Your task to perform on an android device: change keyboard looks Image 0: 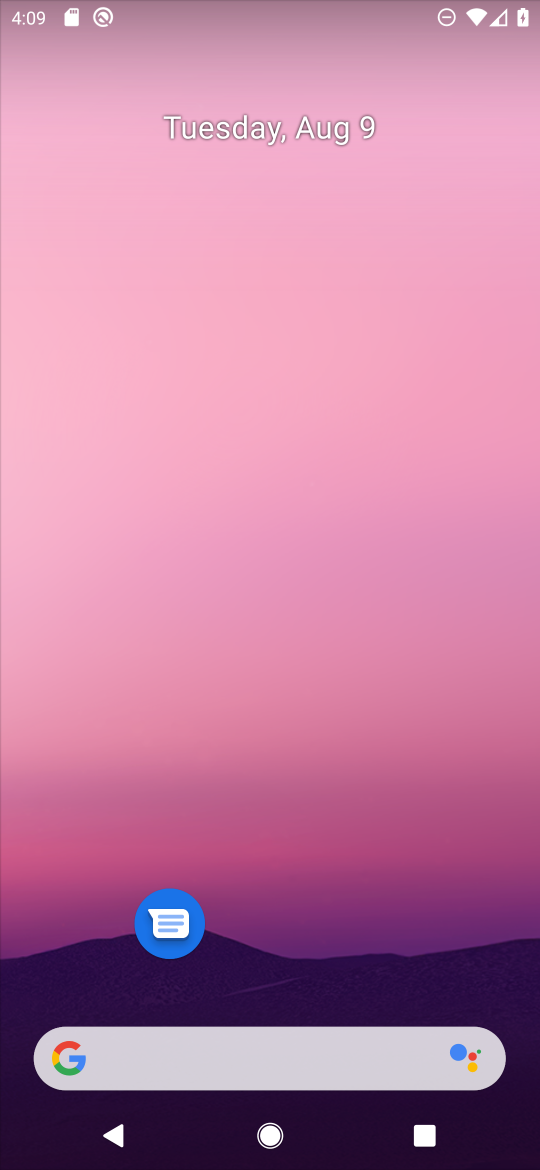
Step 0: drag from (248, 629) to (285, 1)
Your task to perform on an android device: change keyboard looks Image 1: 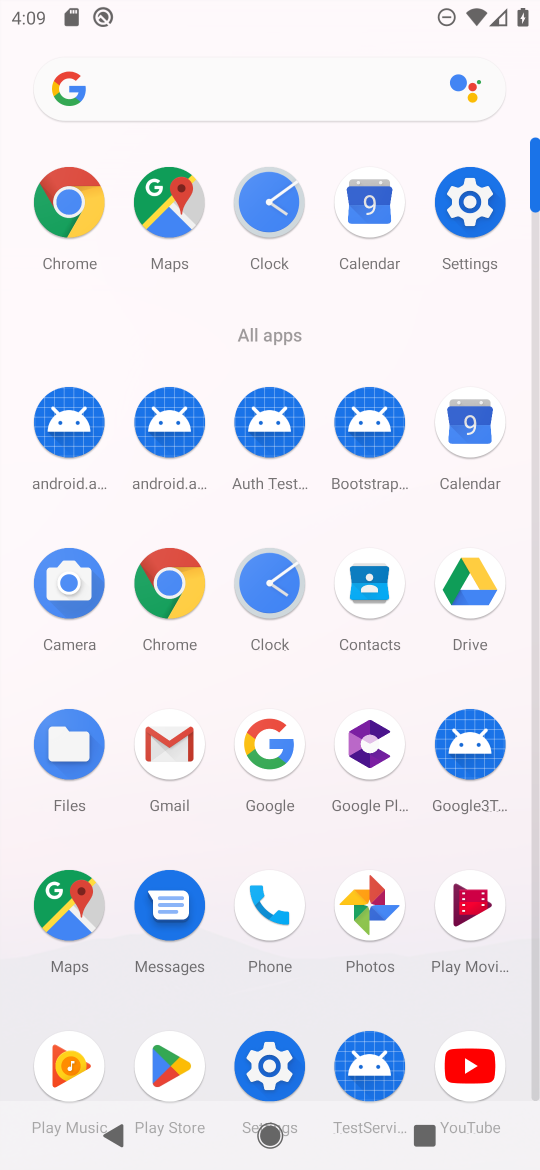
Step 1: click (465, 187)
Your task to perform on an android device: change keyboard looks Image 2: 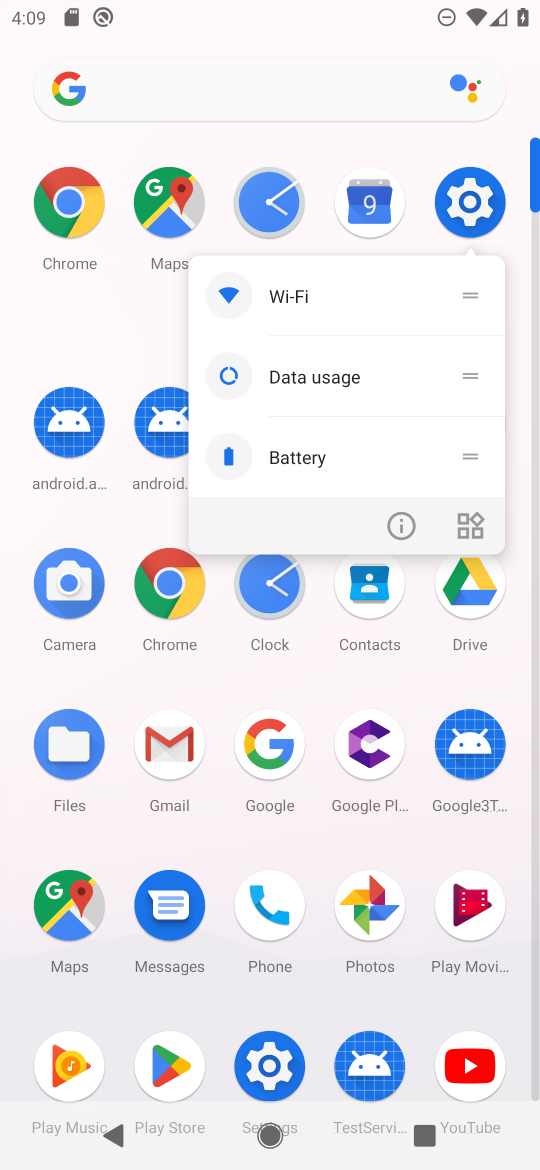
Step 2: click (446, 200)
Your task to perform on an android device: change keyboard looks Image 3: 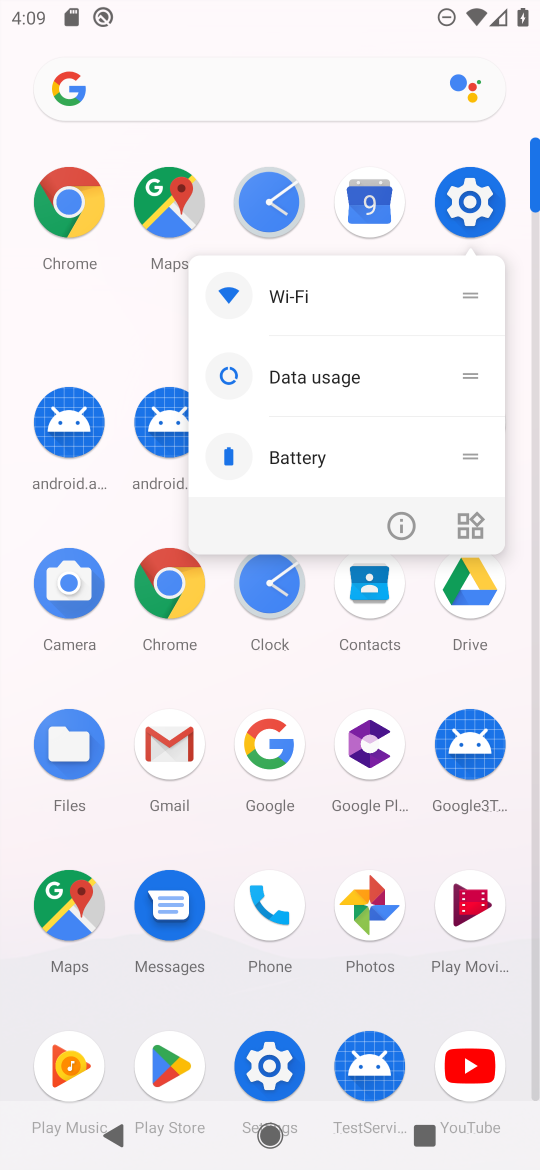
Step 3: click (476, 195)
Your task to perform on an android device: change keyboard looks Image 4: 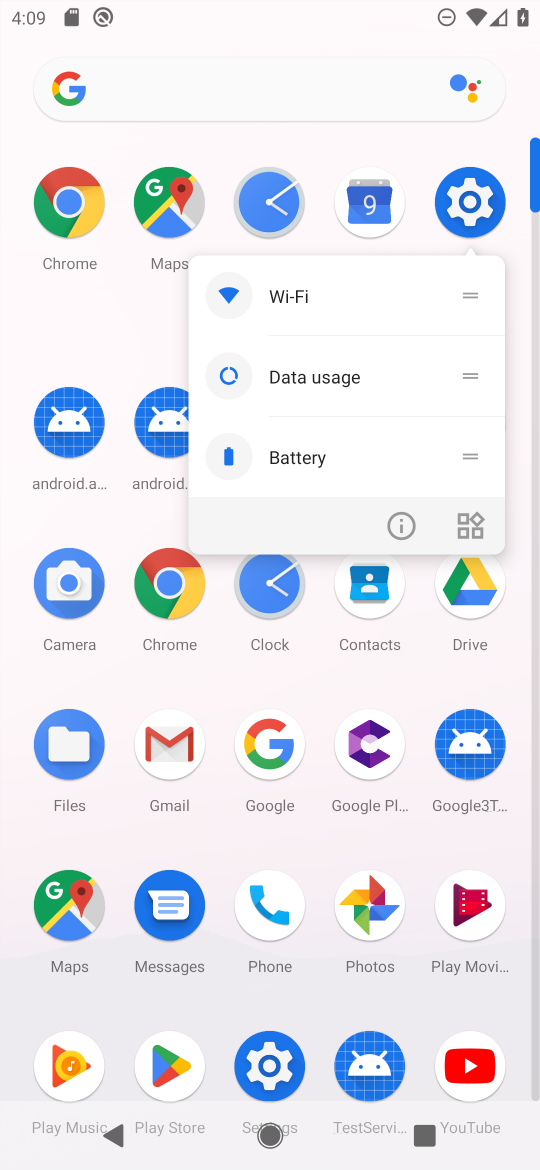
Step 4: click (452, 204)
Your task to perform on an android device: change keyboard looks Image 5: 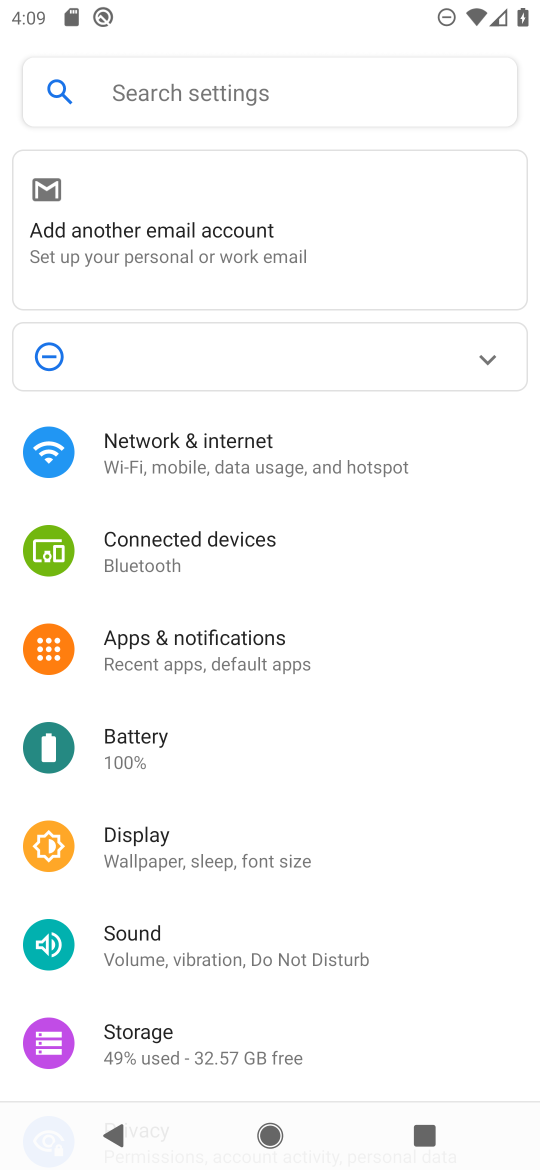
Step 5: drag from (208, 1029) to (412, 146)
Your task to perform on an android device: change keyboard looks Image 6: 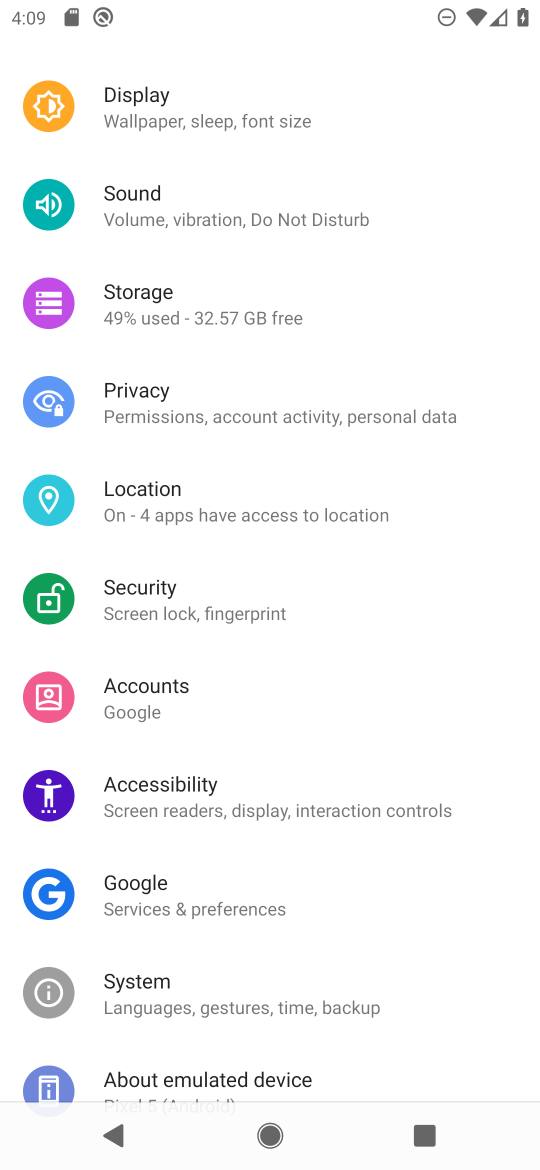
Step 6: click (227, 991)
Your task to perform on an android device: change keyboard looks Image 7: 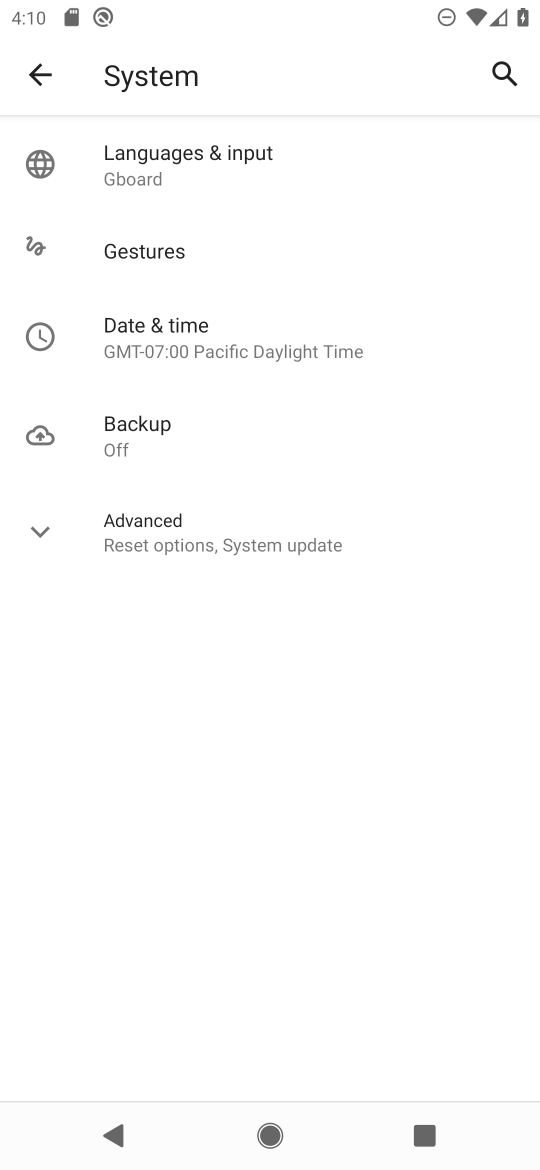
Step 7: click (243, 161)
Your task to perform on an android device: change keyboard looks Image 8: 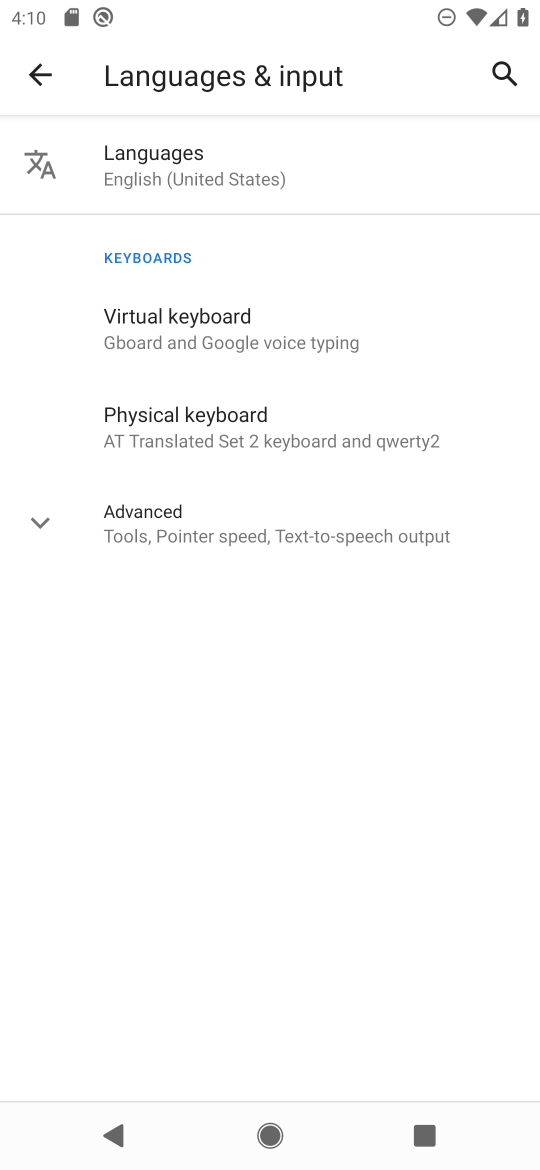
Step 8: click (195, 325)
Your task to perform on an android device: change keyboard looks Image 9: 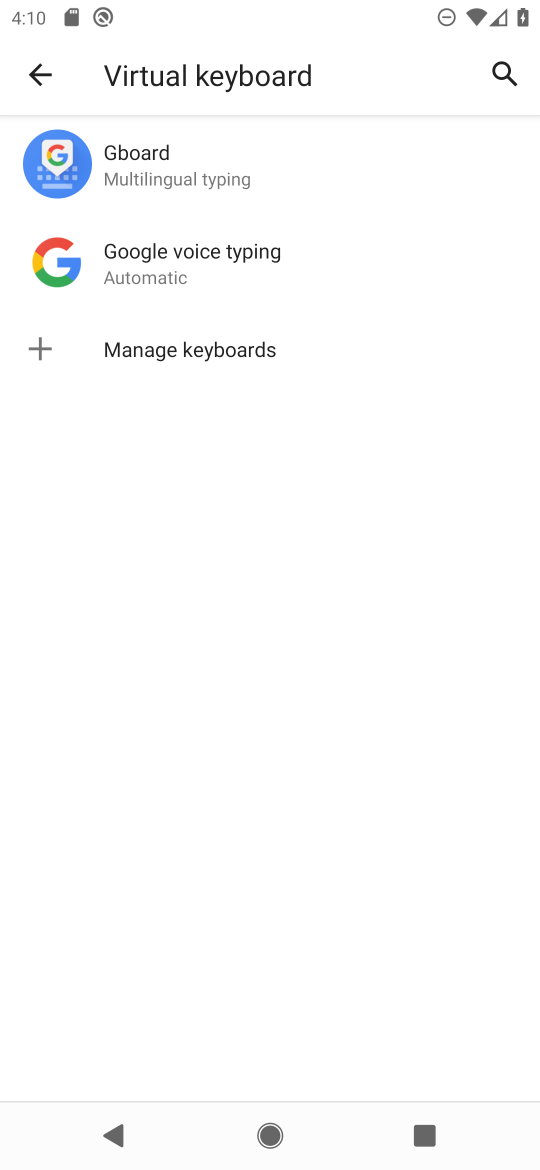
Step 9: click (197, 149)
Your task to perform on an android device: change keyboard looks Image 10: 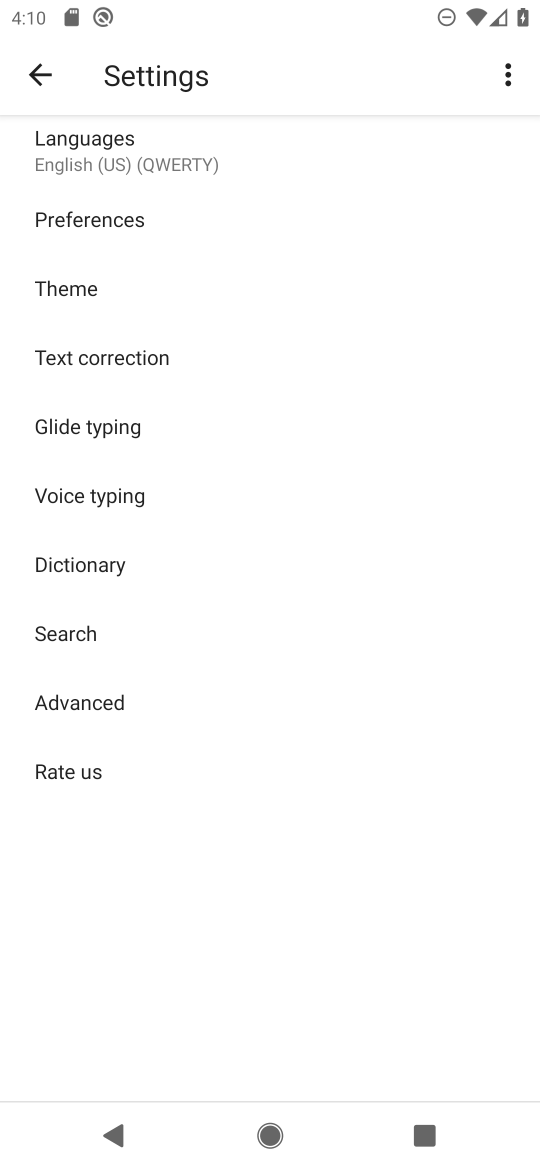
Step 10: click (120, 282)
Your task to perform on an android device: change keyboard looks Image 11: 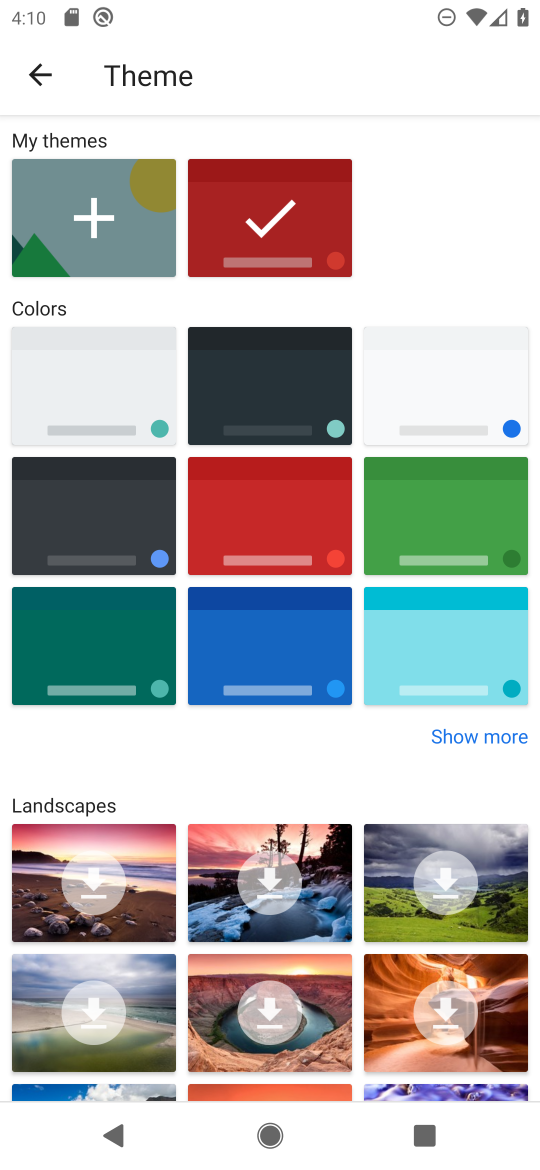
Step 11: click (445, 501)
Your task to perform on an android device: change keyboard looks Image 12: 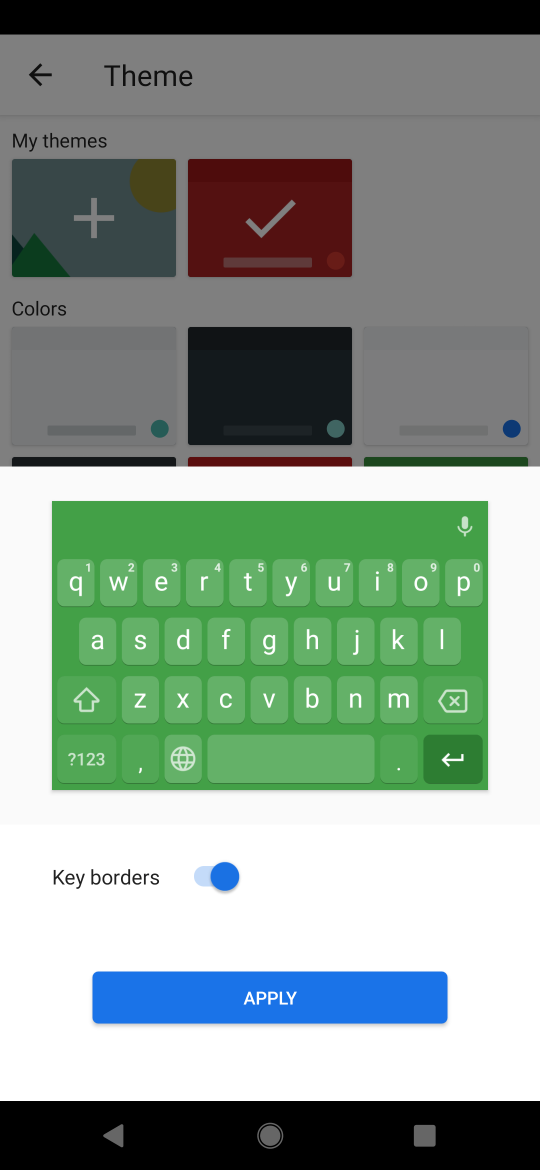
Step 12: click (242, 1002)
Your task to perform on an android device: change keyboard looks Image 13: 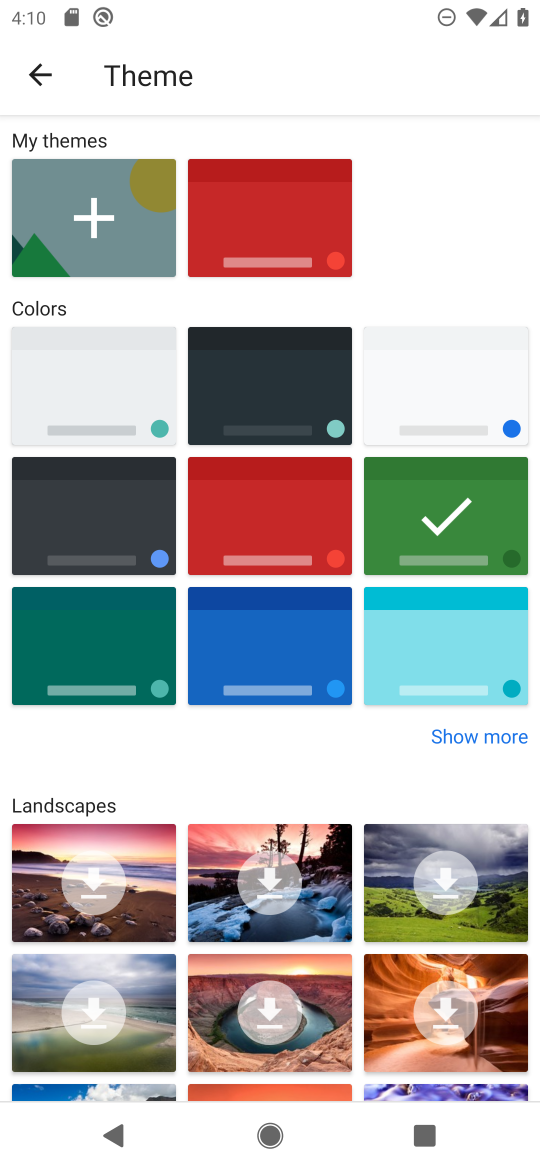
Step 13: task complete